Your task to perform on an android device: change the clock display to show seconds Image 0: 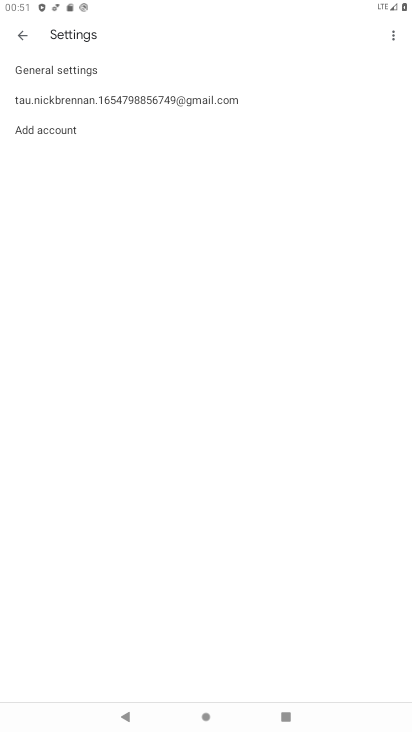
Step 0: press home button
Your task to perform on an android device: change the clock display to show seconds Image 1: 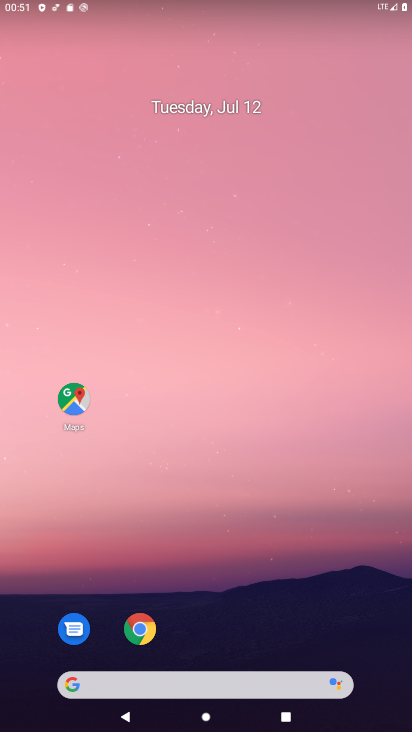
Step 1: drag from (168, 333) to (247, 28)
Your task to perform on an android device: change the clock display to show seconds Image 2: 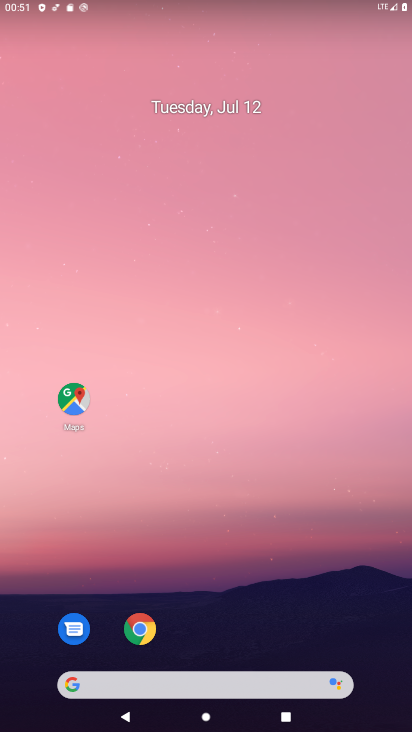
Step 2: drag from (35, 714) to (300, 28)
Your task to perform on an android device: change the clock display to show seconds Image 3: 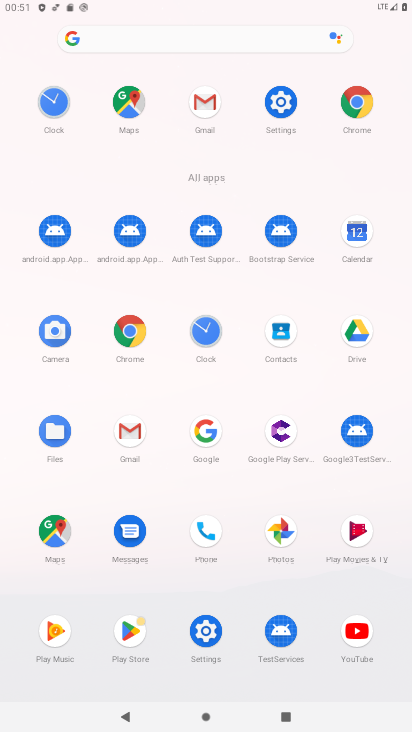
Step 3: click (208, 331)
Your task to perform on an android device: change the clock display to show seconds Image 4: 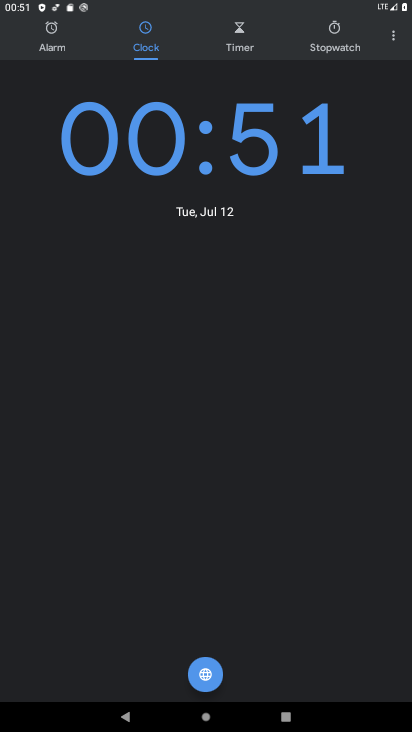
Step 4: click (394, 38)
Your task to perform on an android device: change the clock display to show seconds Image 5: 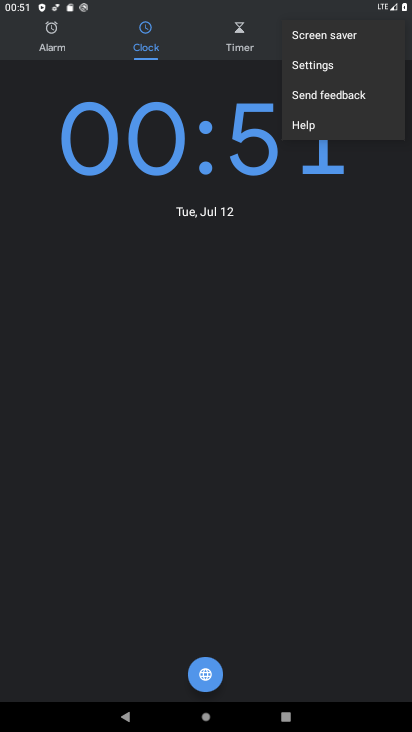
Step 5: click (334, 66)
Your task to perform on an android device: change the clock display to show seconds Image 6: 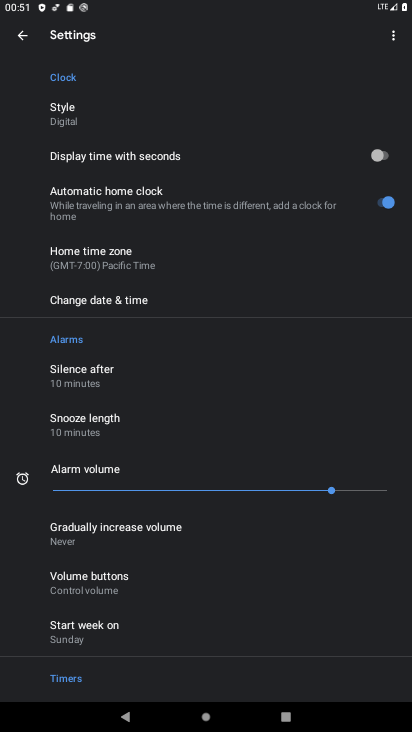
Step 6: click (380, 155)
Your task to perform on an android device: change the clock display to show seconds Image 7: 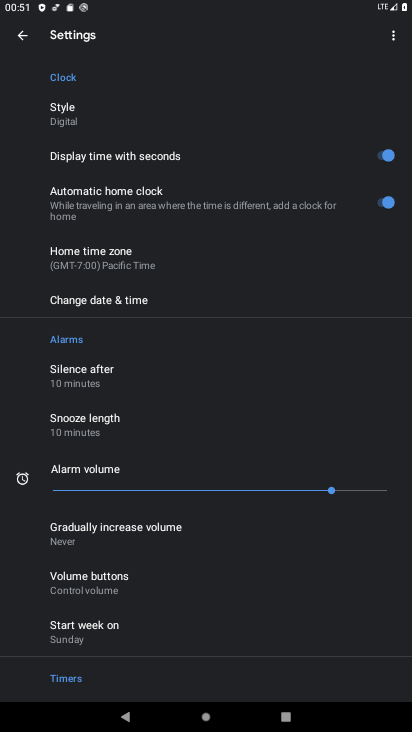
Step 7: task complete